Your task to perform on an android device: change text size in settings app Image 0: 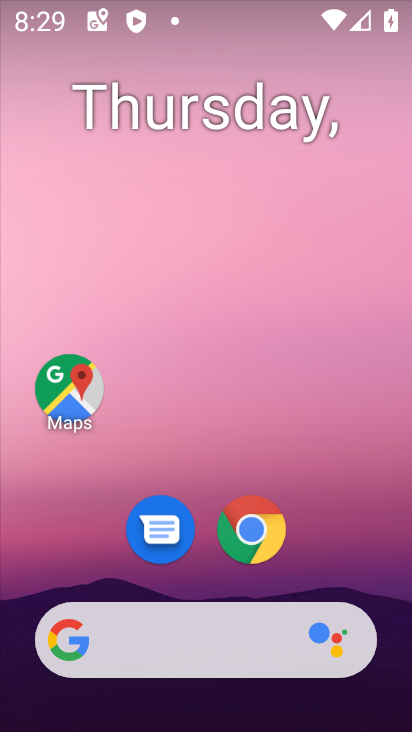
Step 0: drag from (246, 717) to (234, 67)
Your task to perform on an android device: change text size in settings app Image 1: 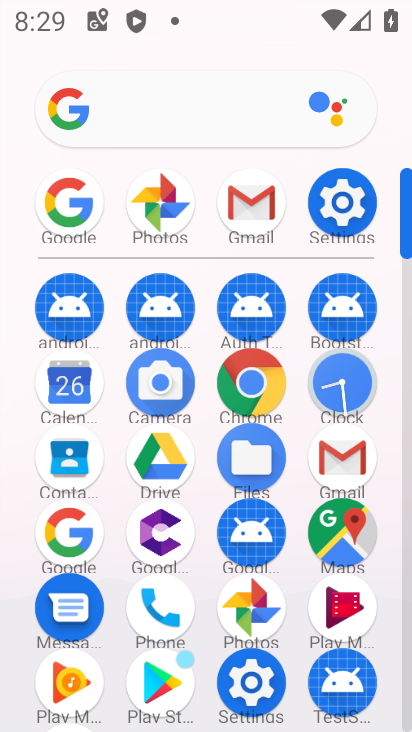
Step 1: click (248, 678)
Your task to perform on an android device: change text size in settings app Image 2: 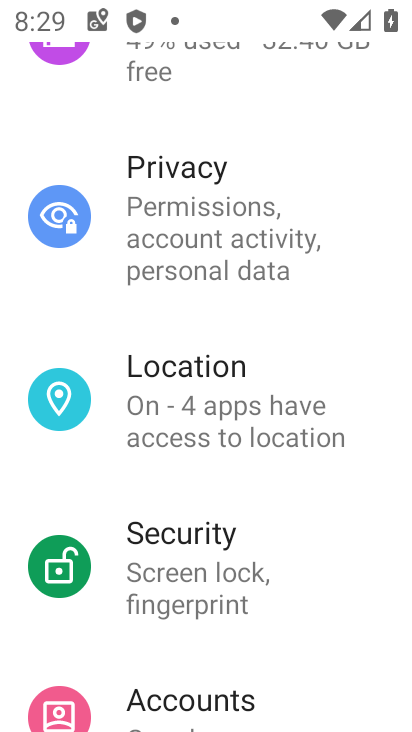
Step 2: drag from (287, 153) to (295, 684)
Your task to perform on an android device: change text size in settings app Image 3: 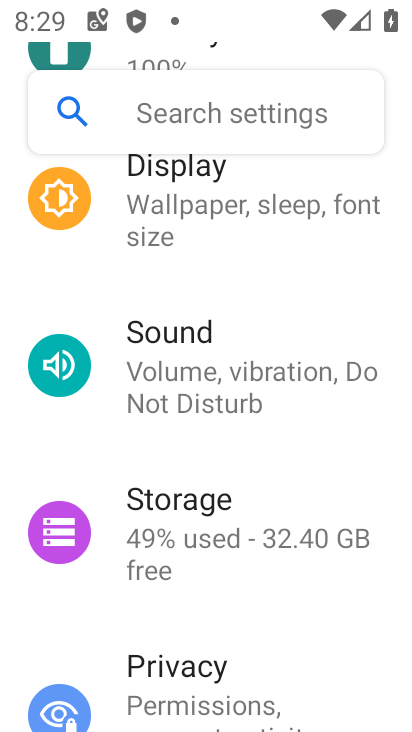
Step 3: drag from (241, 178) to (241, 609)
Your task to perform on an android device: change text size in settings app Image 4: 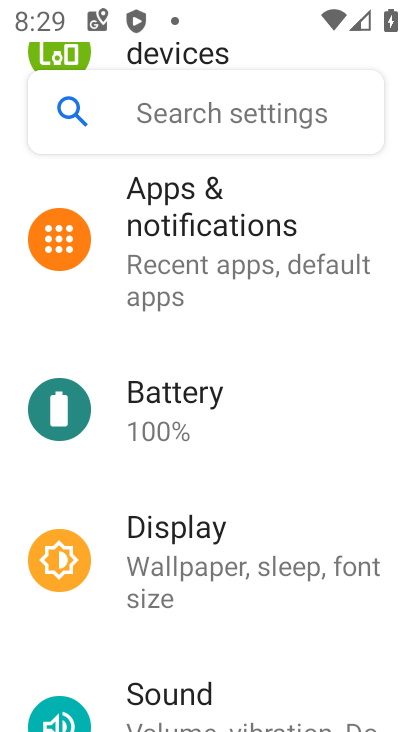
Step 4: click (228, 565)
Your task to perform on an android device: change text size in settings app Image 5: 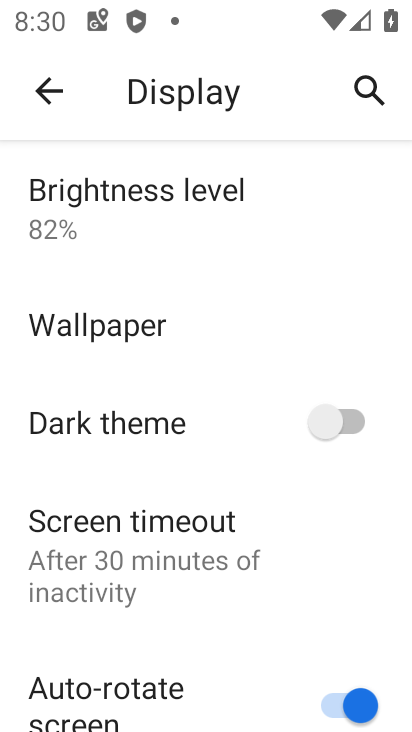
Step 5: drag from (142, 649) to (107, 174)
Your task to perform on an android device: change text size in settings app Image 6: 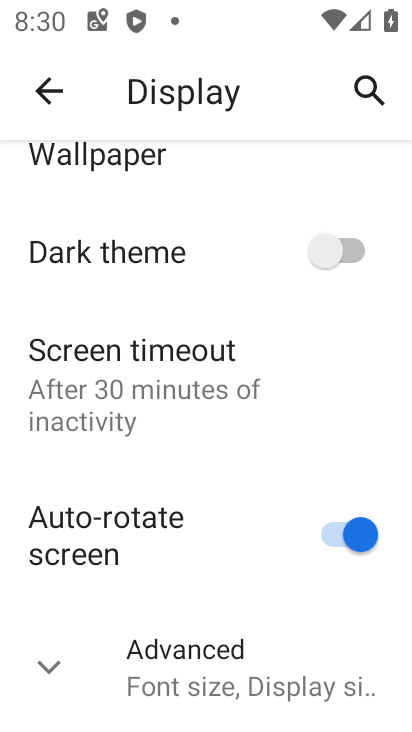
Step 6: click (167, 687)
Your task to perform on an android device: change text size in settings app Image 7: 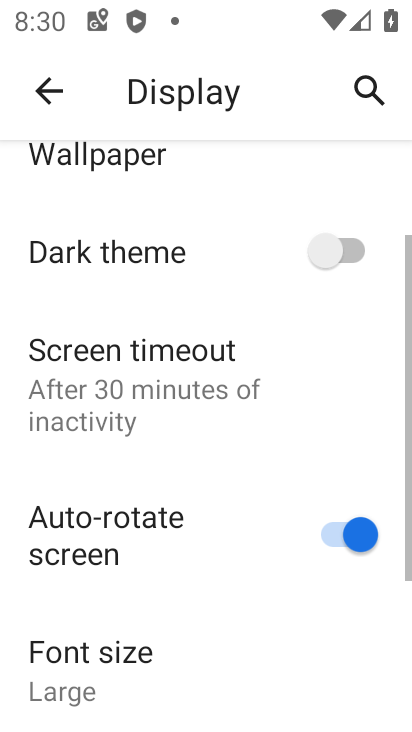
Step 7: drag from (190, 684) to (175, 343)
Your task to perform on an android device: change text size in settings app Image 8: 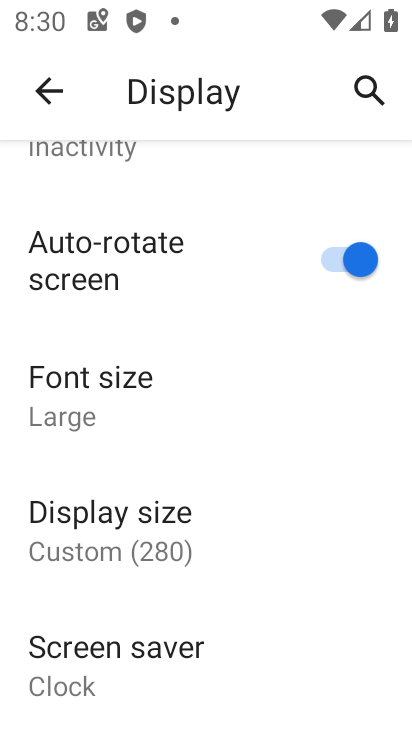
Step 8: click (67, 402)
Your task to perform on an android device: change text size in settings app Image 9: 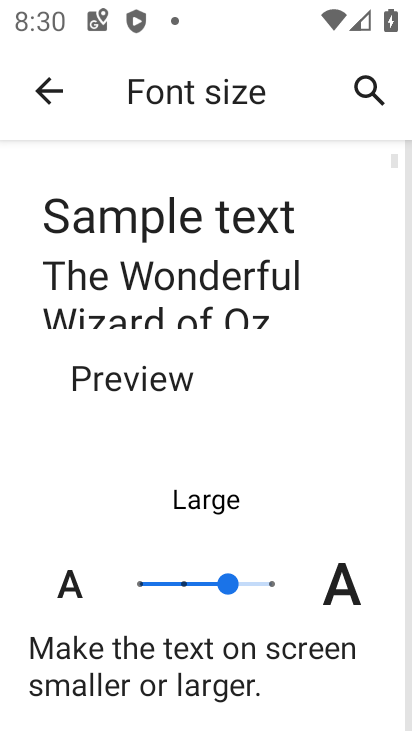
Step 9: click (179, 586)
Your task to perform on an android device: change text size in settings app Image 10: 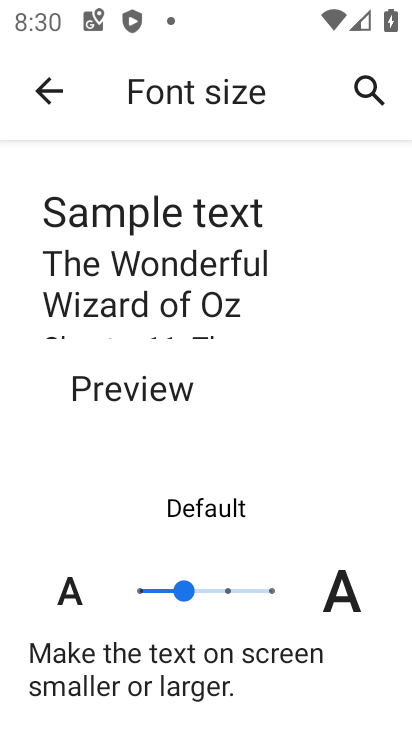
Step 10: task complete